Your task to perform on an android device: turn pop-ups off in chrome Image 0: 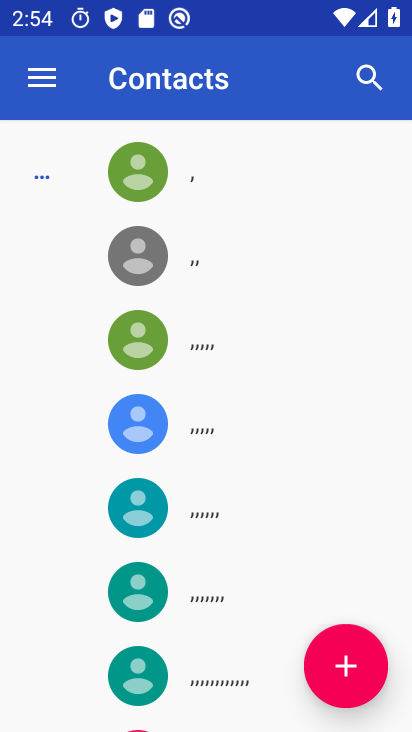
Step 0: press home button
Your task to perform on an android device: turn pop-ups off in chrome Image 1: 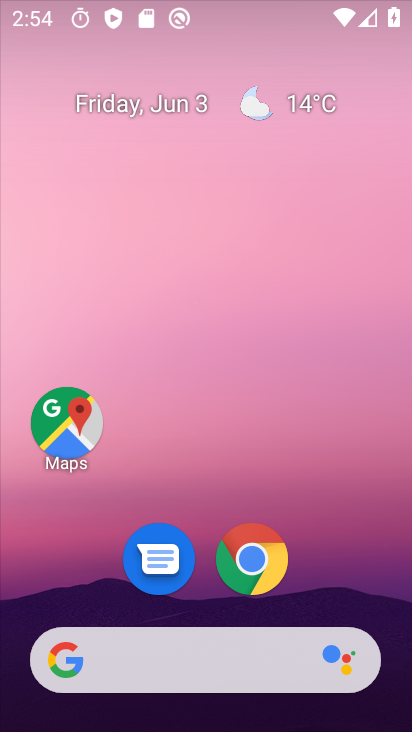
Step 1: click (257, 581)
Your task to perform on an android device: turn pop-ups off in chrome Image 2: 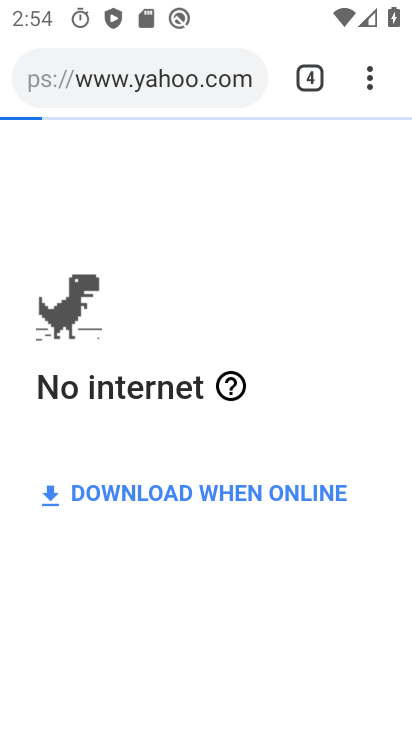
Step 2: drag from (364, 78) to (123, 620)
Your task to perform on an android device: turn pop-ups off in chrome Image 3: 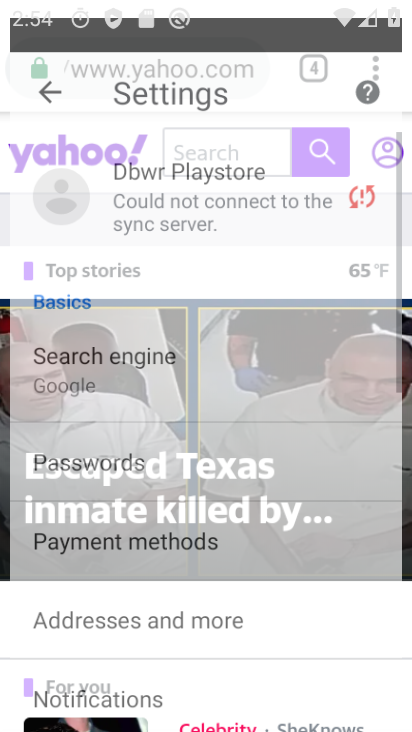
Step 3: drag from (125, 618) to (55, 255)
Your task to perform on an android device: turn pop-ups off in chrome Image 4: 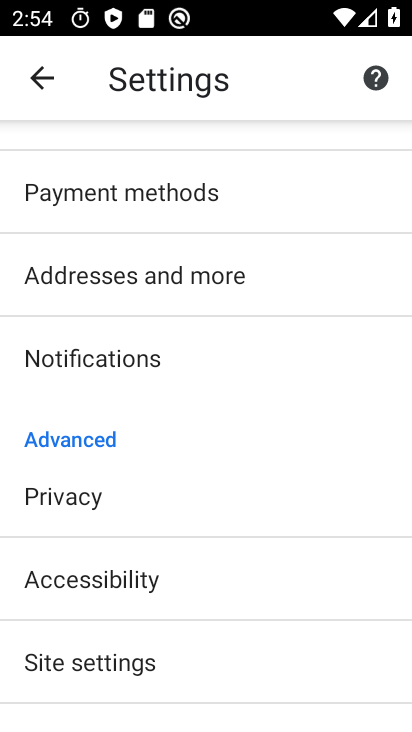
Step 4: click (99, 646)
Your task to perform on an android device: turn pop-ups off in chrome Image 5: 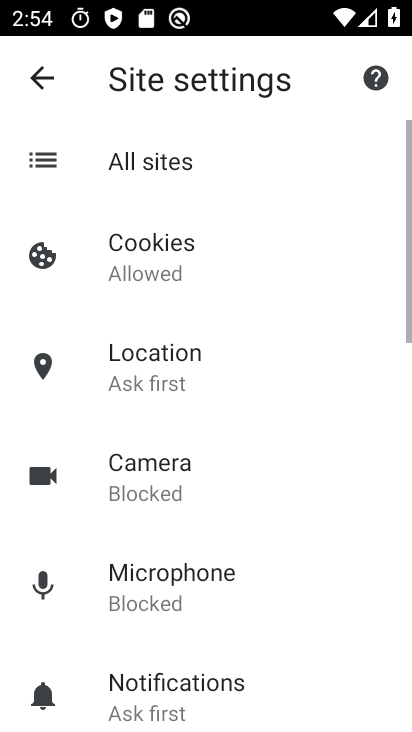
Step 5: drag from (104, 644) to (34, 190)
Your task to perform on an android device: turn pop-ups off in chrome Image 6: 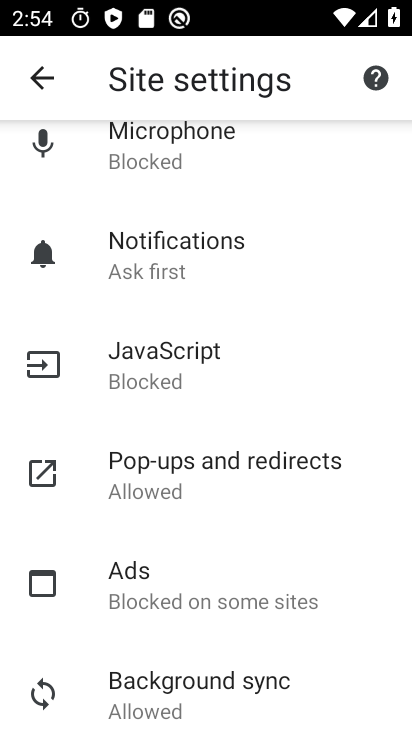
Step 6: click (145, 472)
Your task to perform on an android device: turn pop-ups off in chrome Image 7: 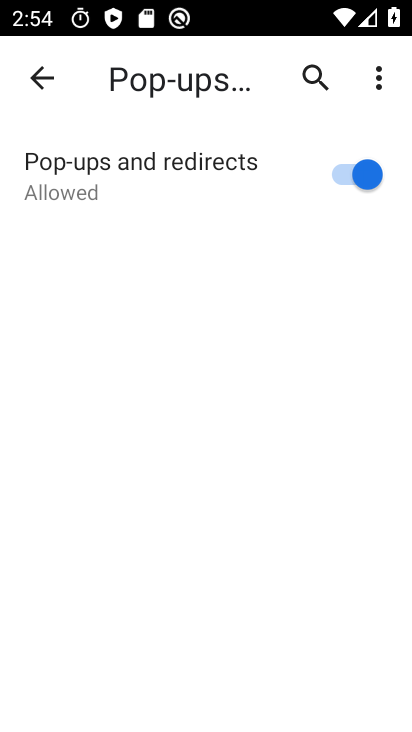
Step 7: click (341, 181)
Your task to perform on an android device: turn pop-ups off in chrome Image 8: 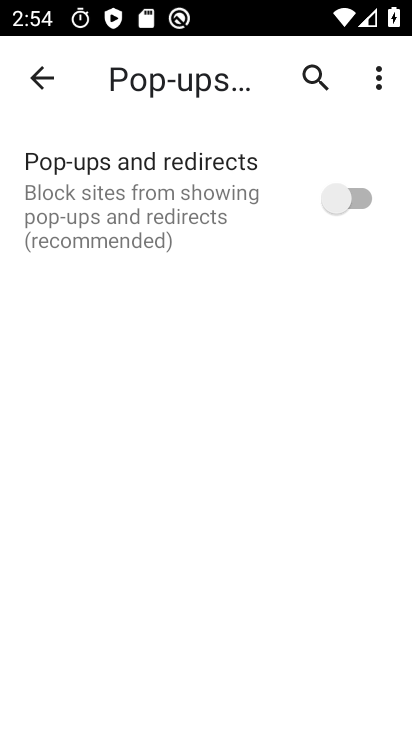
Step 8: task complete